Your task to perform on an android device: manage bookmarks in the chrome app Image 0: 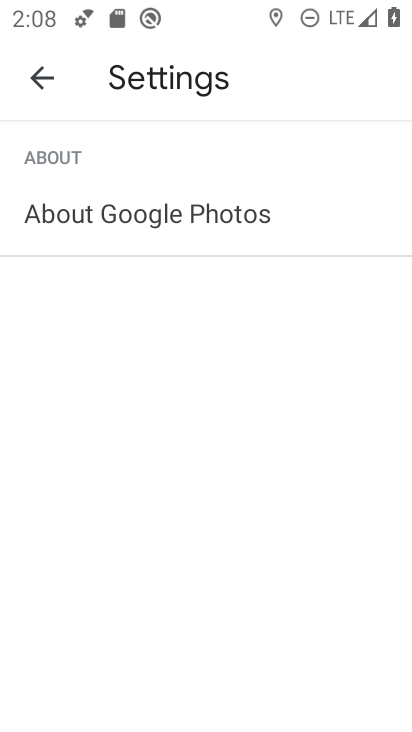
Step 0: press home button
Your task to perform on an android device: manage bookmarks in the chrome app Image 1: 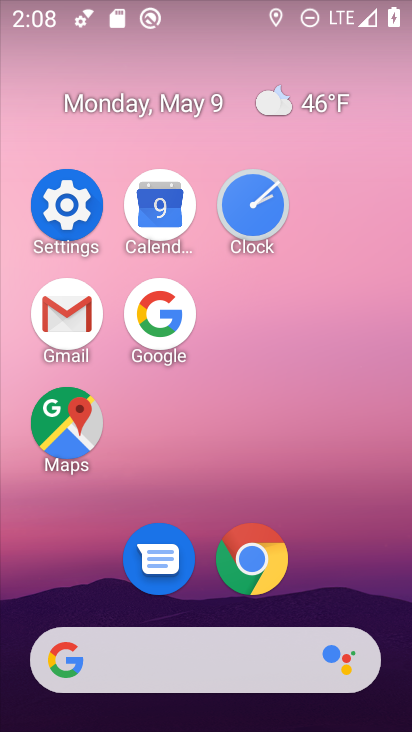
Step 1: click (250, 553)
Your task to perform on an android device: manage bookmarks in the chrome app Image 2: 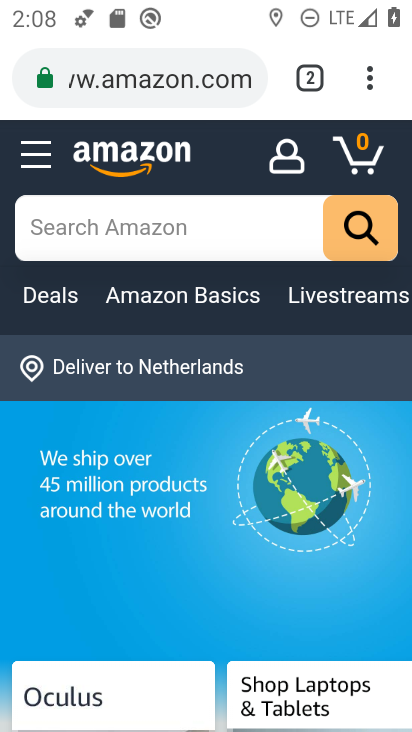
Step 2: click (376, 72)
Your task to perform on an android device: manage bookmarks in the chrome app Image 3: 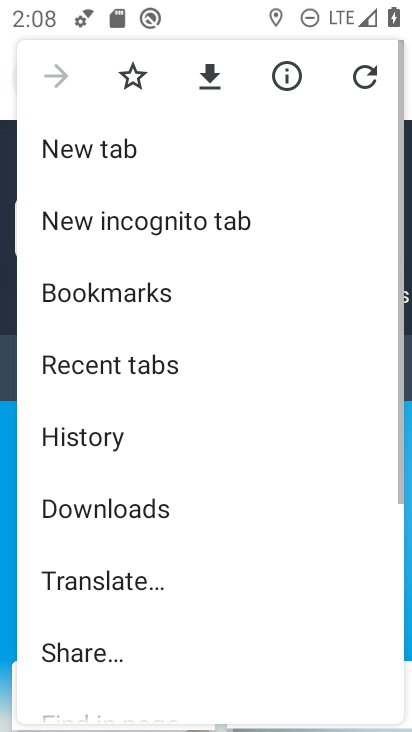
Step 3: click (200, 303)
Your task to perform on an android device: manage bookmarks in the chrome app Image 4: 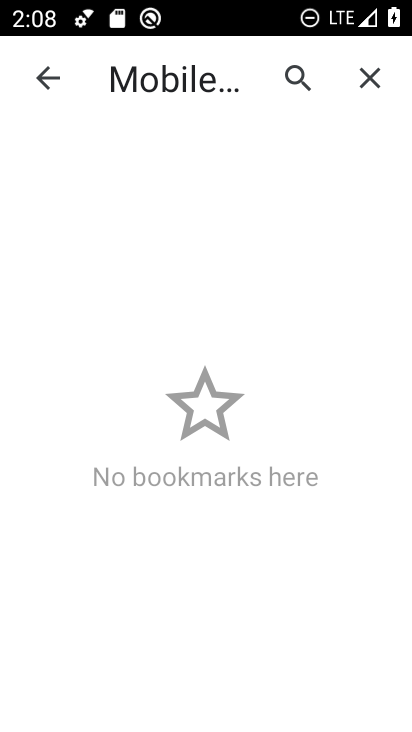
Step 4: task complete